Your task to perform on an android device: Open Google Image 0: 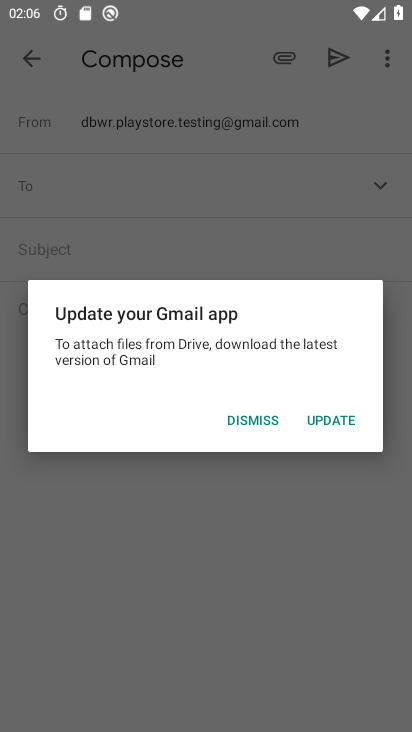
Step 0: press home button
Your task to perform on an android device: Open Google Image 1: 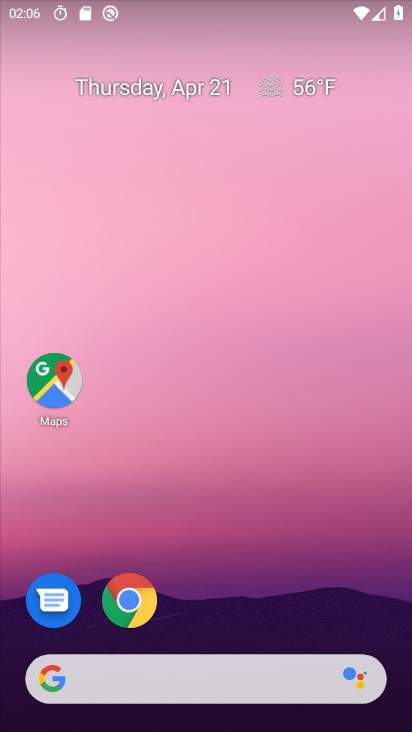
Step 1: click (51, 682)
Your task to perform on an android device: Open Google Image 2: 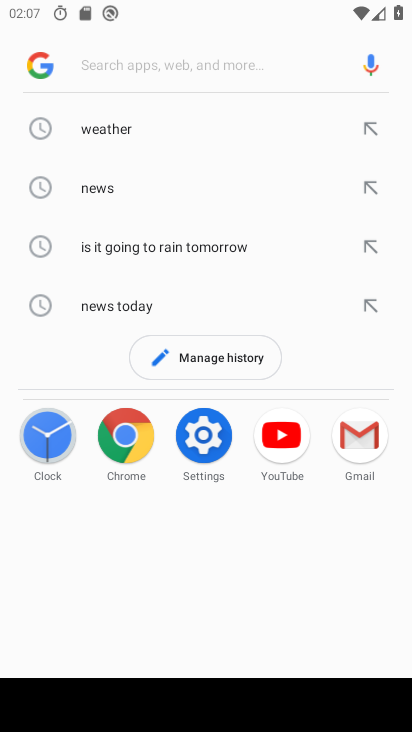
Step 2: click (38, 67)
Your task to perform on an android device: Open Google Image 3: 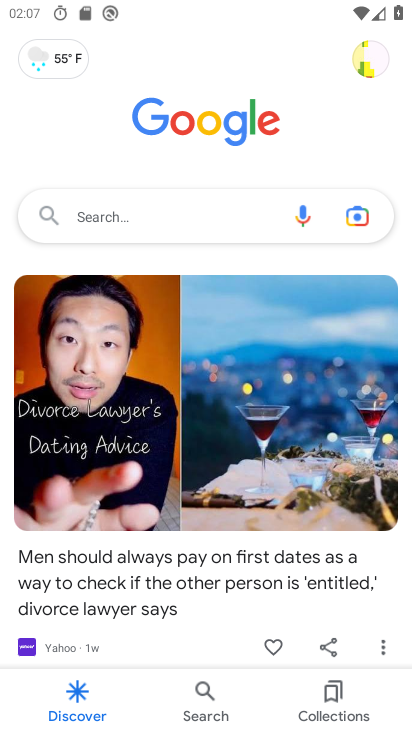
Step 3: task complete